Your task to perform on an android device: What's the news this week? Image 0: 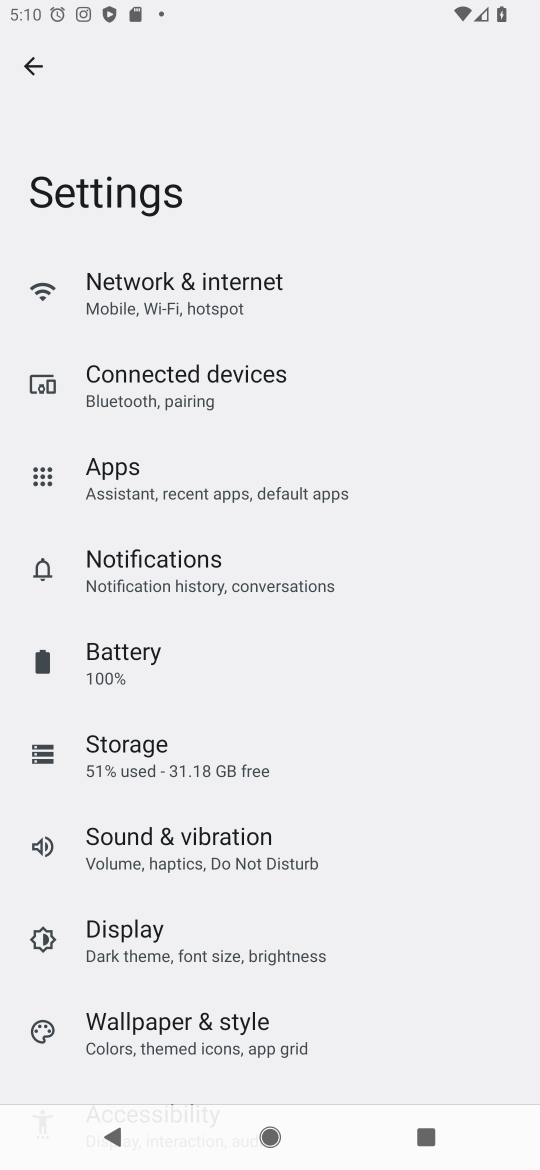
Step 0: press home button
Your task to perform on an android device: What's the news this week? Image 1: 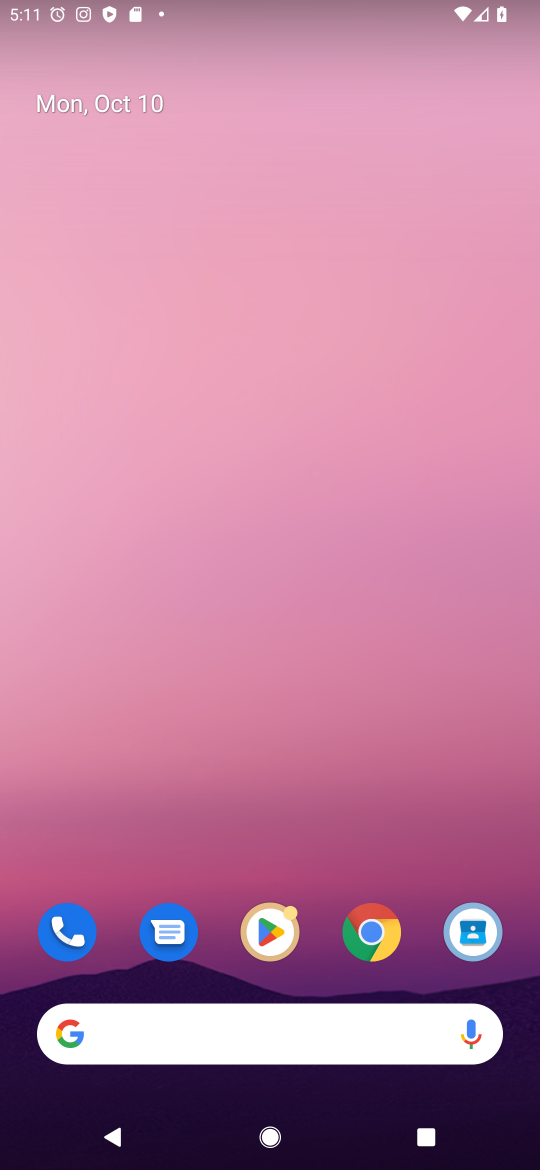
Step 1: click (243, 1038)
Your task to perform on an android device: What's the news this week? Image 2: 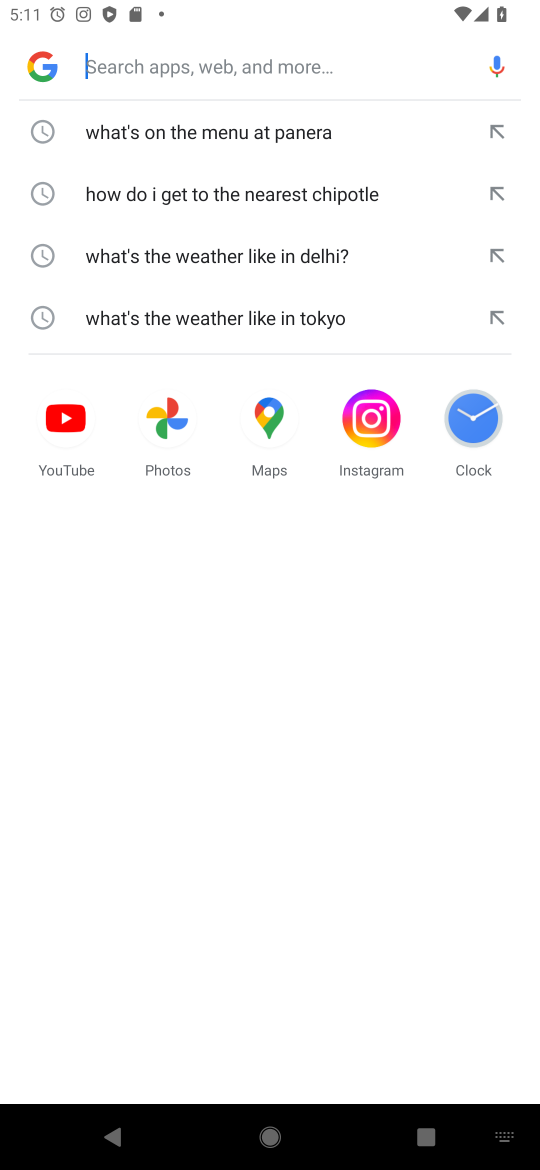
Step 2: press enter
Your task to perform on an android device: What's the news this week? Image 3: 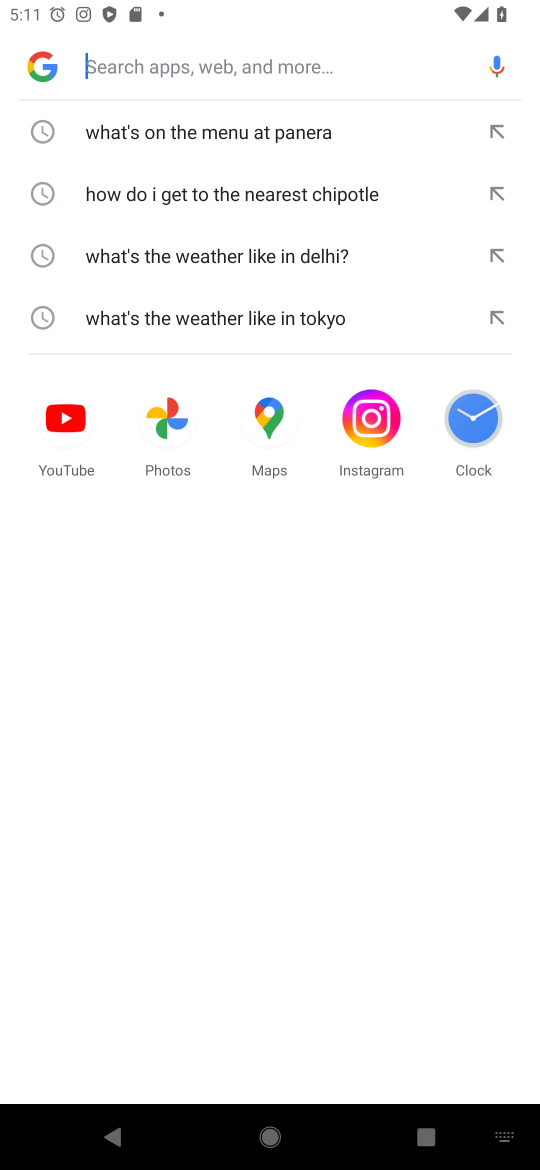
Step 3: type "What's the news this week?"
Your task to perform on an android device: What's the news this week? Image 4: 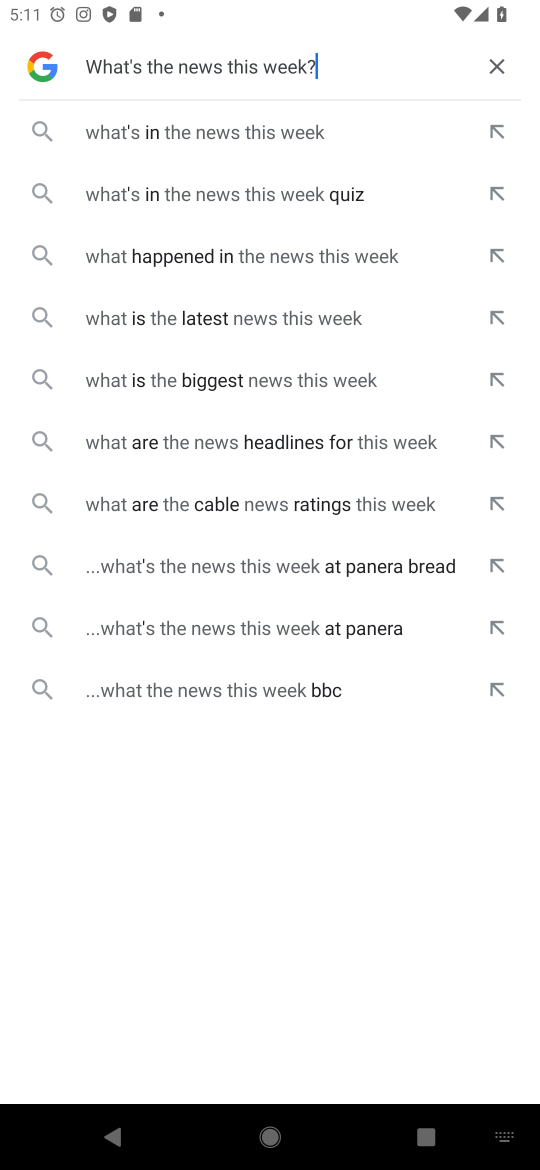
Step 4: press enter
Your task to perform on an android device: What's the news this week? Image 5: 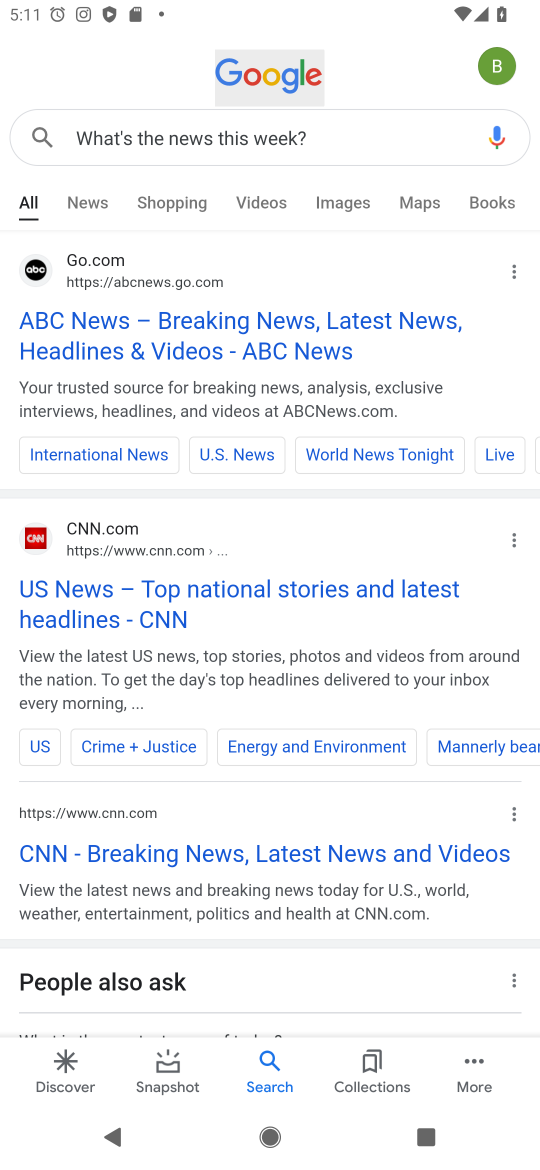
Step 5: click (306, 336)
Your task to perform on an android device: What's the news this week? Image 6: 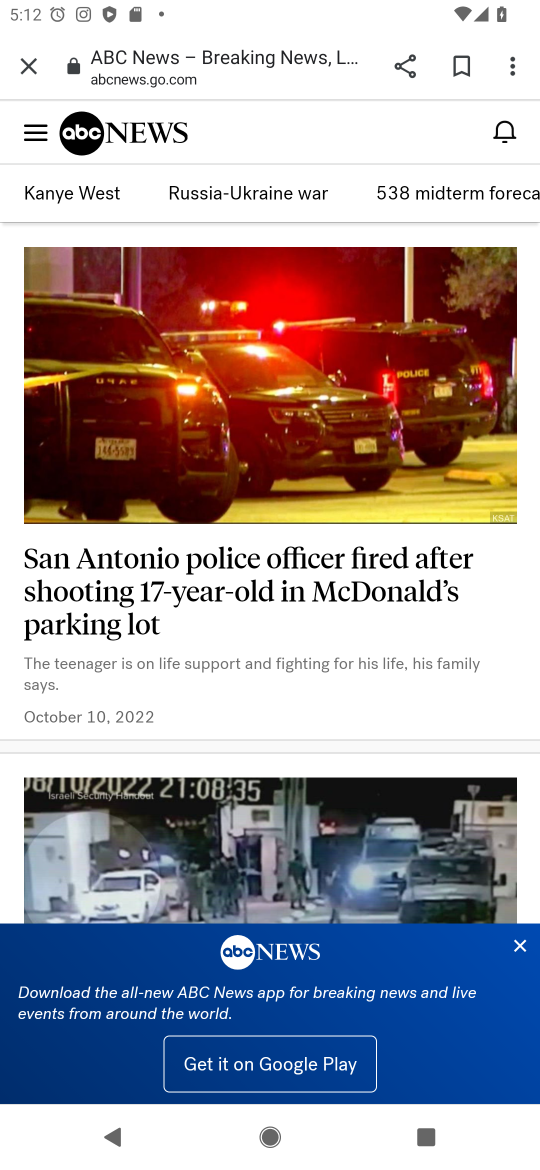
Step 6: task complete